Your task to perform on an android device: toggle airplane mode Image 0: 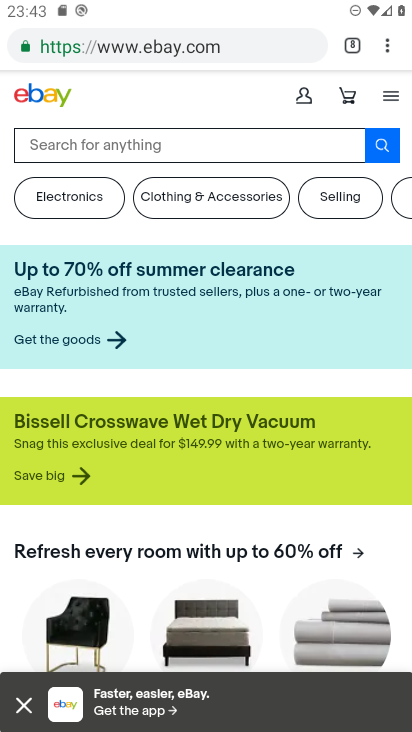
Step 0: press home button
Your task to perform on an android device: toggle airplane mode Image 1: 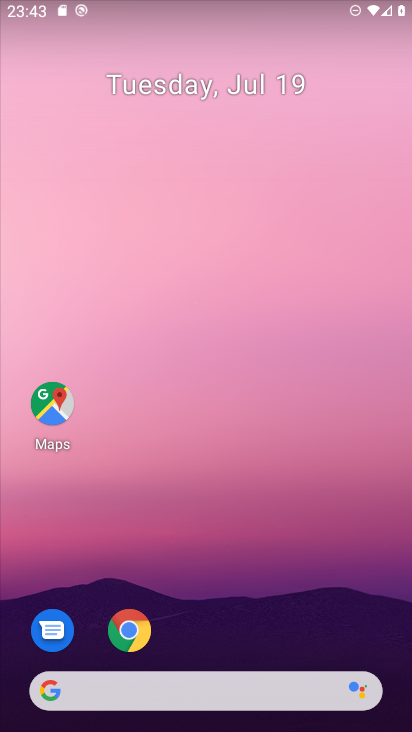
Step 1: drag from (222, 608) to (185, 202)
Your task to perform on an android device: toggle airplane mode Image 2: 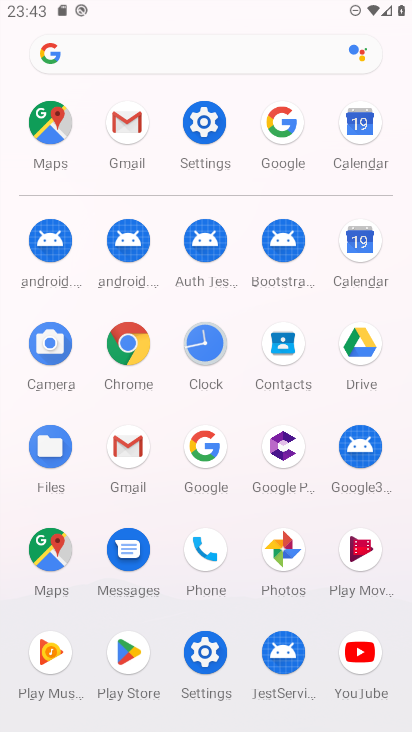
Step 2: click (193, 147)
Your task to perform on an android device: toggle airplane mode Image 3: 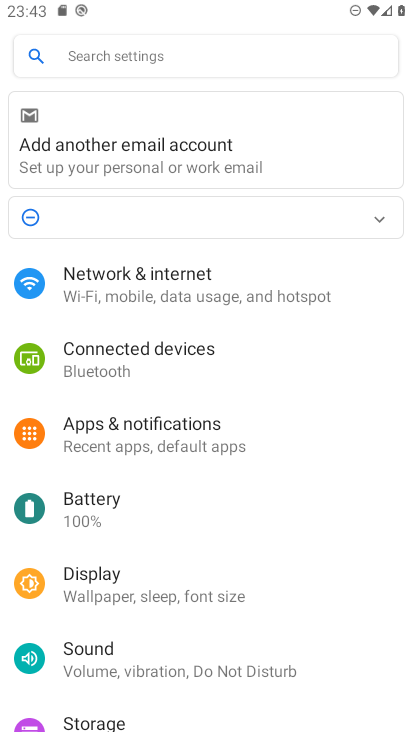
Step 3: click (174, 299)
Your task to perform on an android device: toggle airplane mode Image 4: 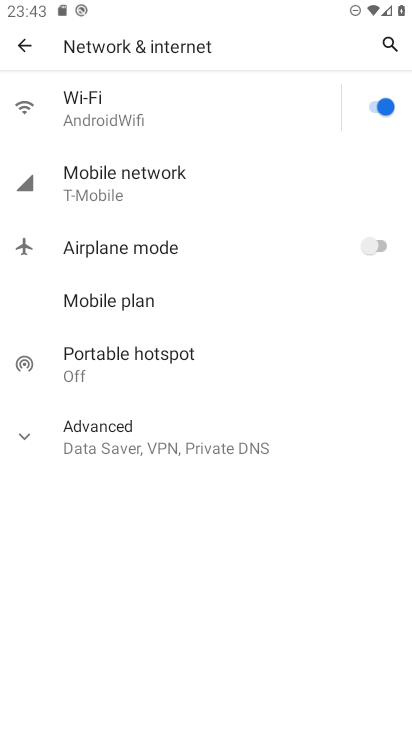
Step 4: click (377, 246)
Your task to perform on an android device: toggle airplane mode Image 5: 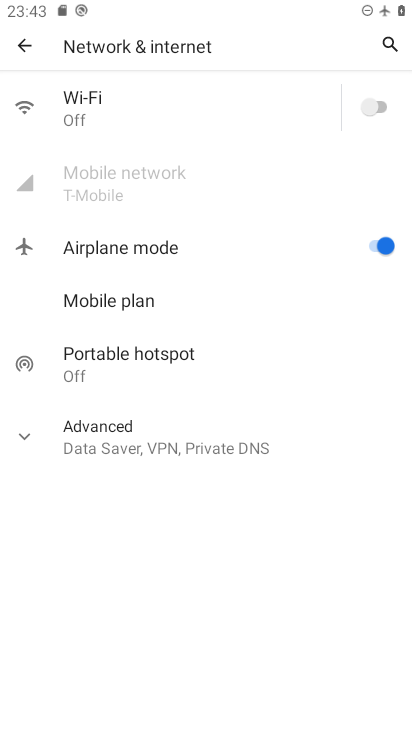
Step 5: task complete